Your task to perform on an android device: Open privacy settings Image 0: 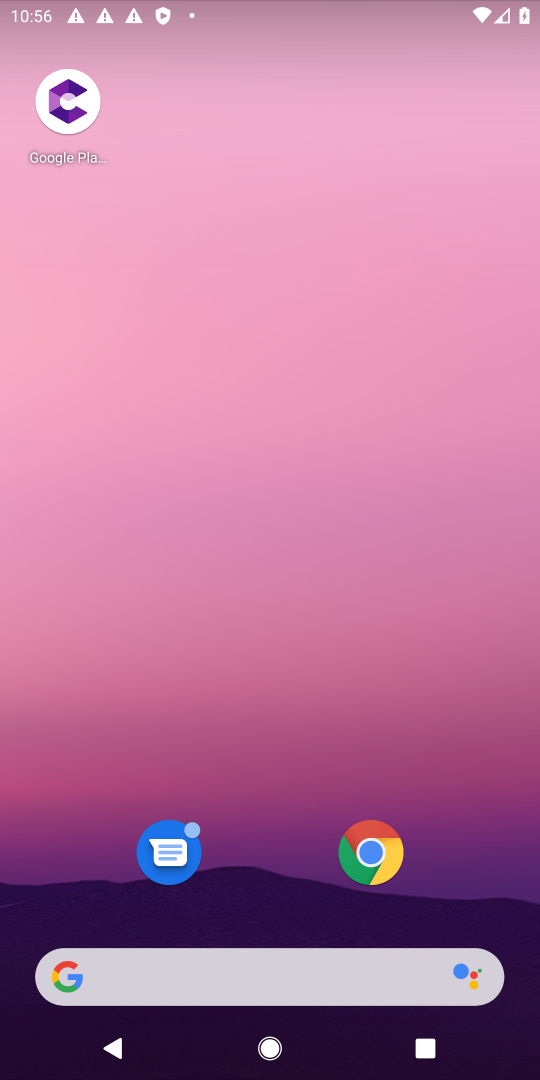
Step 0: press home button
Your task to perform on an android device: Open privacy settings Image 1: 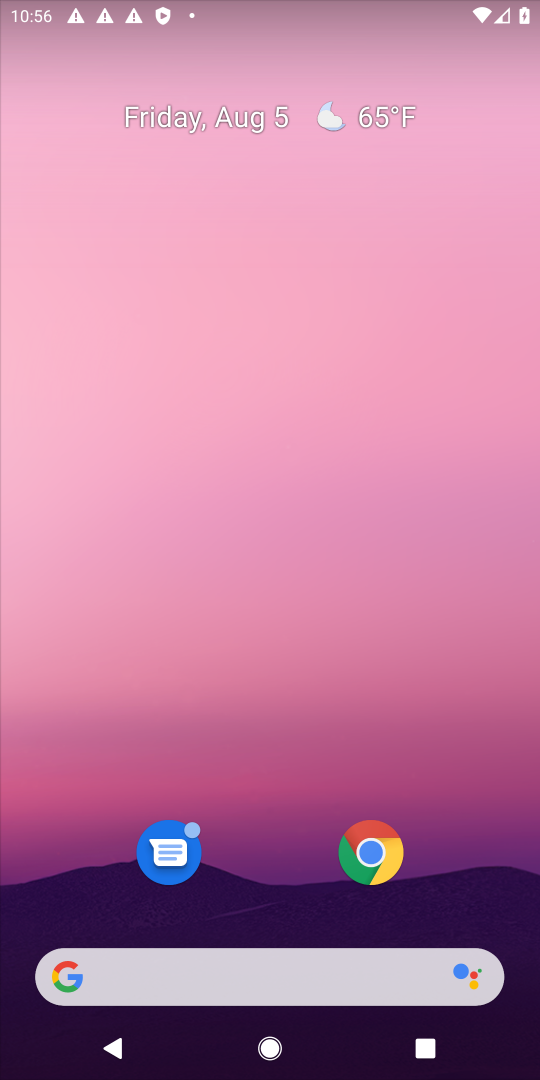
Step 1: drag from (316, 977) to (263, 83)
Your task to perform on an android device: Open privacy settings Image 2: 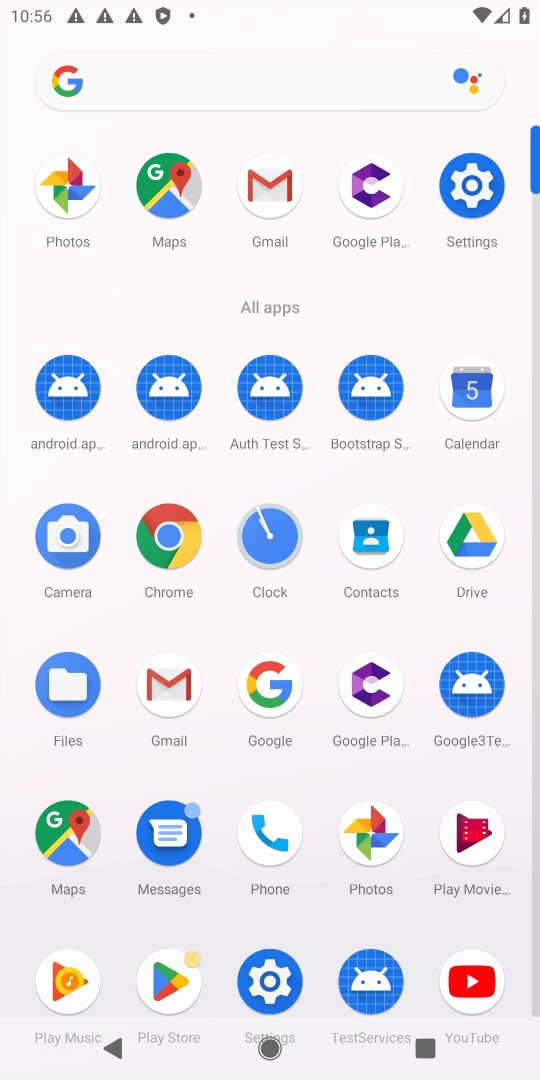
Step 2: click (462, 214)
Your task to perform on an android device: Open privacy settings Image 3: 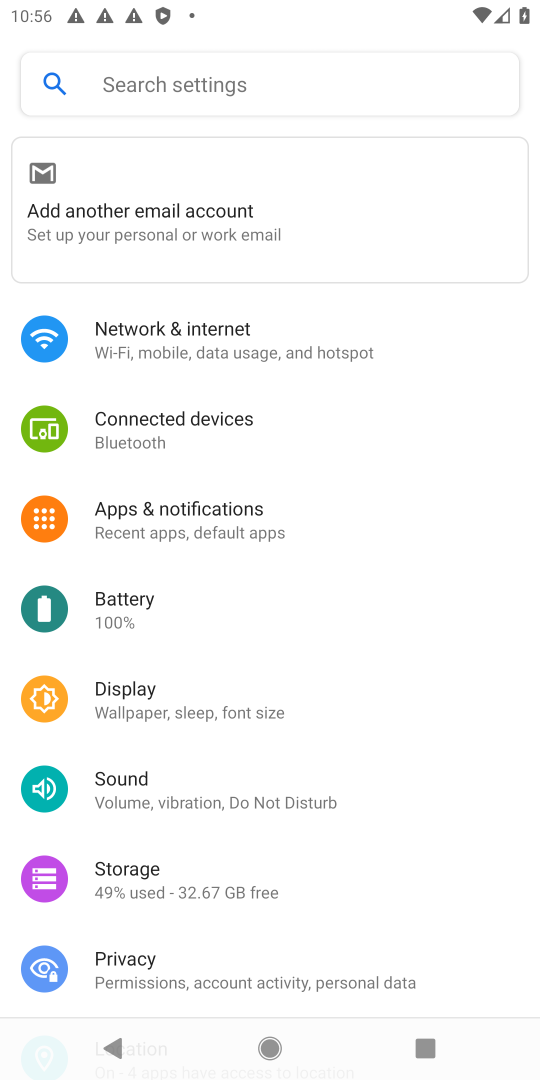
Step 3: click (152, 973)
Your task to perform on an android device: Open privacy settings Image 4: 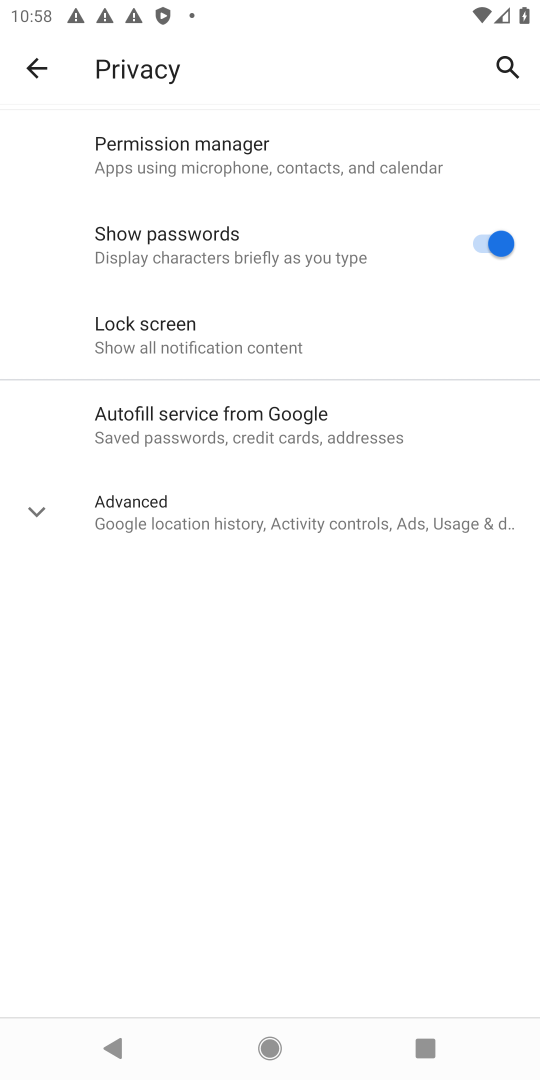
Step 4: task complete